Your task to perform on an android device: open device folders in google photos Image 0: 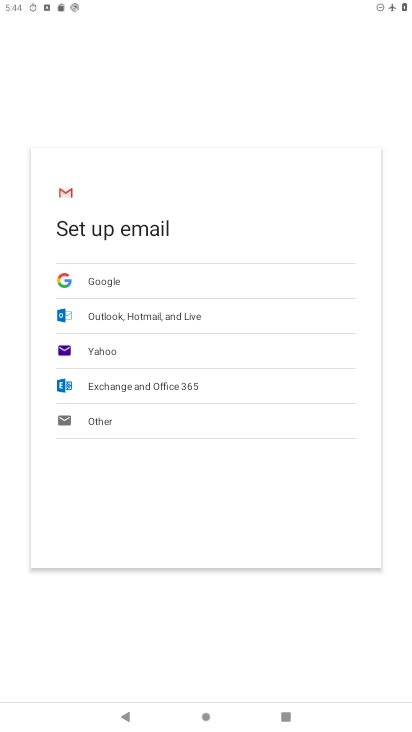
Step 0: press home button
Your task to perform on an android device: open device folders in google photos Image 1: 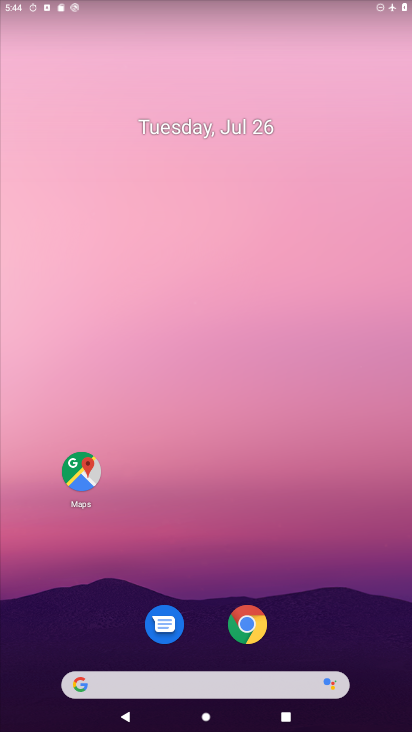
Step 1: drag from (311, 616) to (308, 3)
Your task to perform on an android device: open device folders in google photos Image 2: 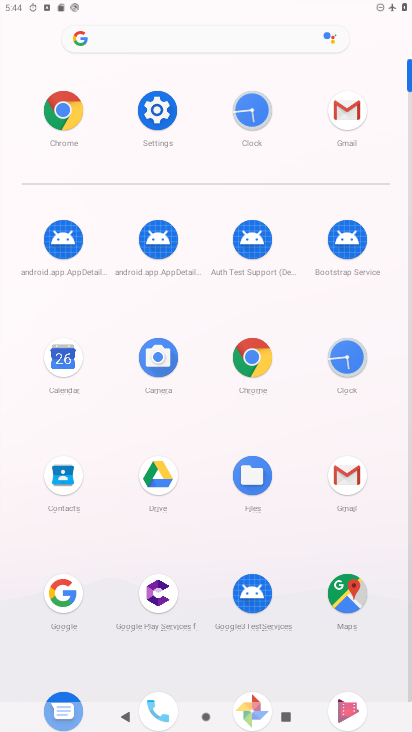
Step 2: drag from (224, 649) to (217, 293)
Your task to perform on an android device: open device folders in google photos Image 3: 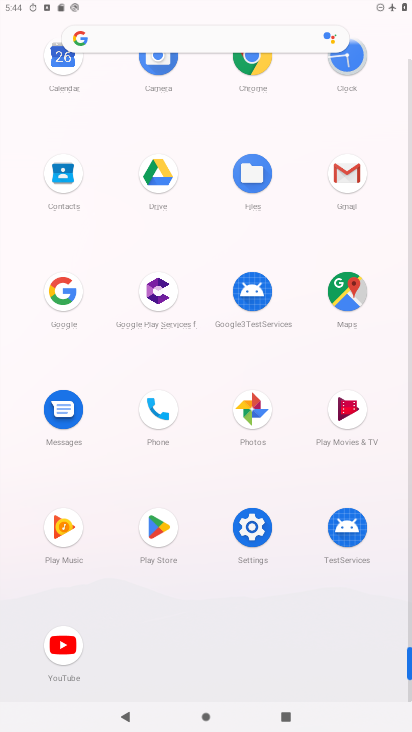
Step 3: click (256, 408)
Your task to perform on an android device: open device folders in google photos Image 4: 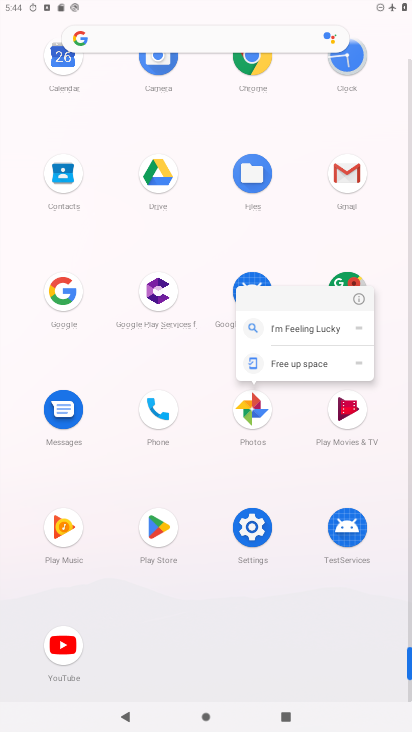
Step 4: click (256, 408)
Your task to perform on an android device: open device folders in google photos Image 5: 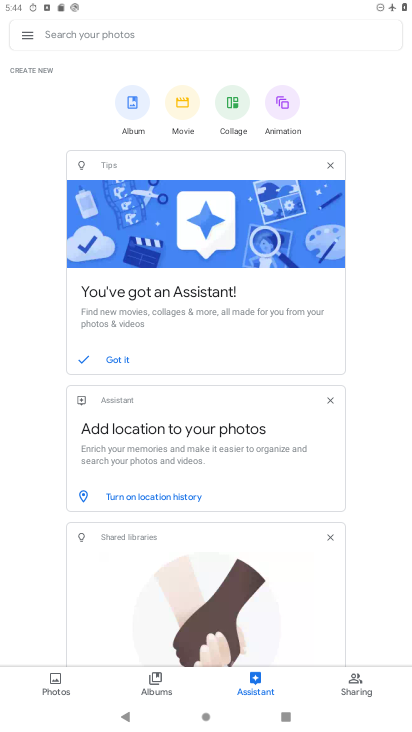
Step 5: click (59, 680)
Your task to perform on an android device: open device folders in google photos Image 6: 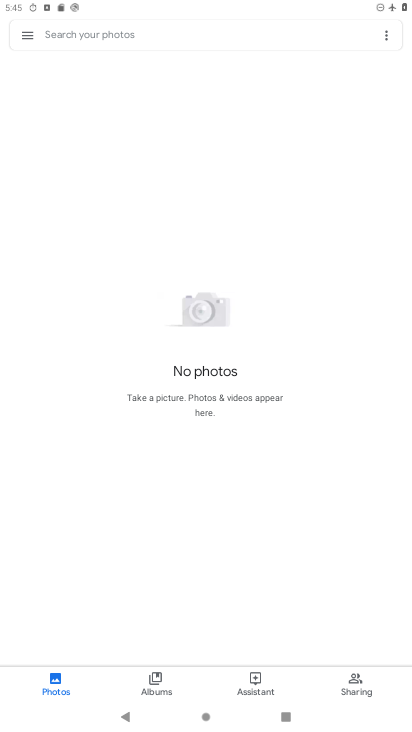
Step 6: click (21, 32)
Your task to perform on an android device: open device folders in google photos Image 7: 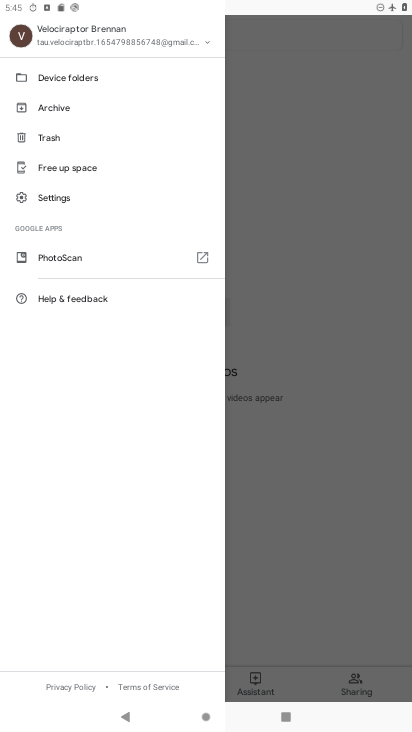
Step 7: click (69, 69)
Your task to perform on an android device: open device folders in google photos Image 8: 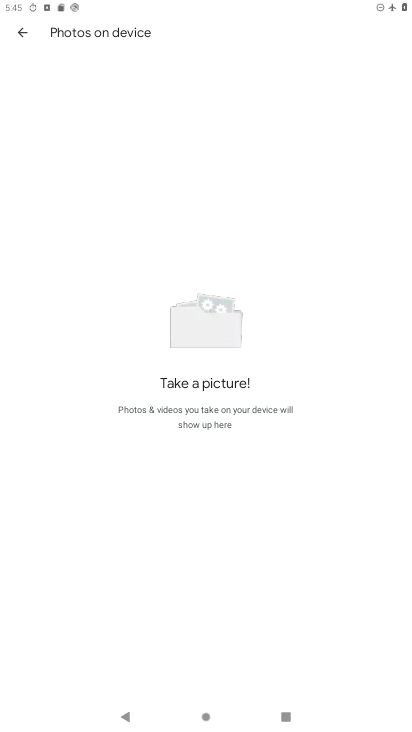
Step 8: task complete